Your task to perform on an android device: search for starred emails in the gmail app Image 0: 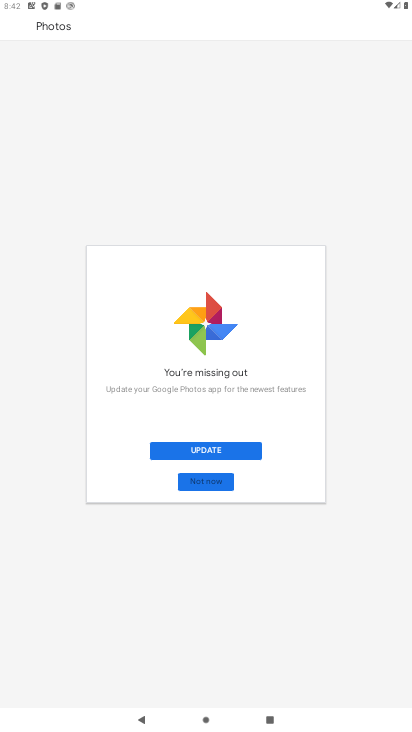
Step 0: press home button
Your task to perform on an android device: search for starred emails in the gmail app Image 1: 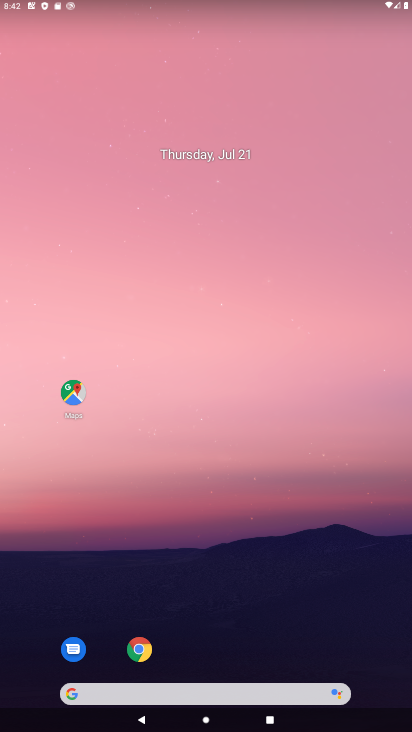
Step 1: drag from (212, 646) to (175, 0)
Your task to perform on an android device: search for starred emails in the gmail app Image 2: 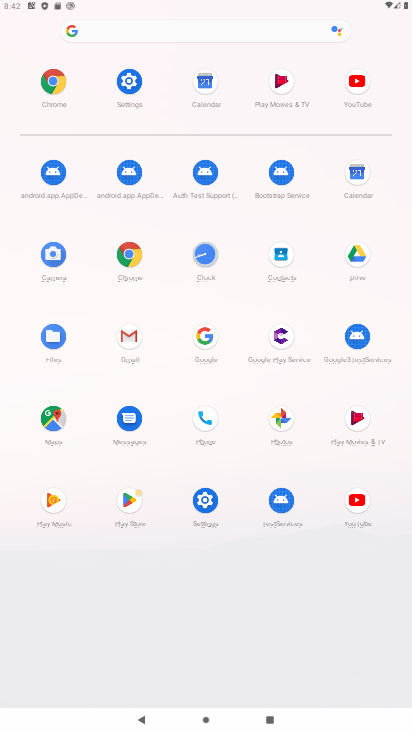
Step 2: click (129, 335)
Your task to perform on an android device: search for starred emails in the gmail app Image 3: 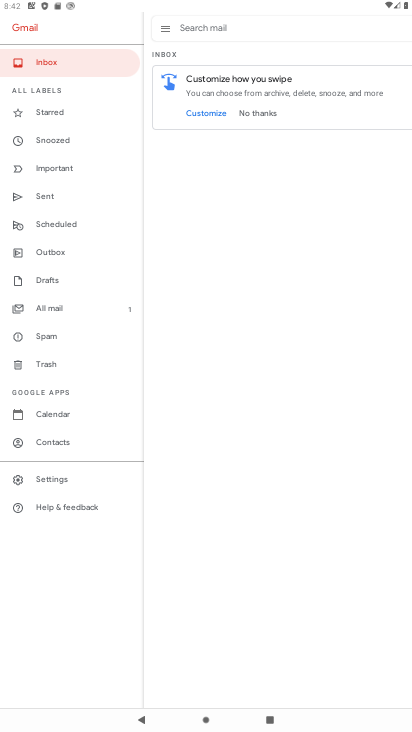
Step 3: click (59, 116)
Your task to perform on an android device: search for starred emails in the gmail app Image 4: 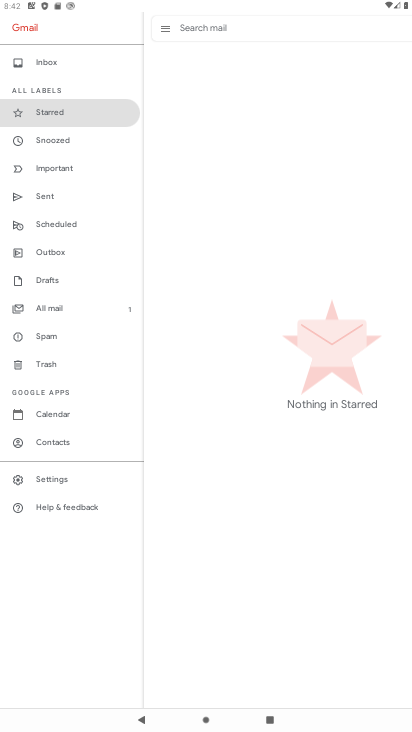
Step 4: task complete